Your task to perform on an android device: change the clock display to show seconds Image 0: 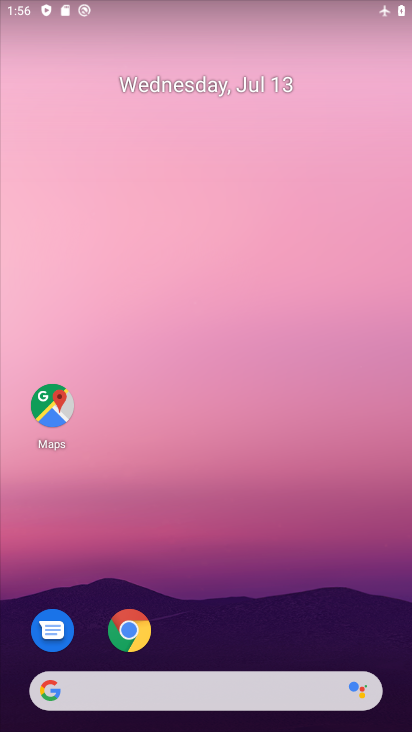
Step 0: drag from (243, 674) to (198, 191)
Your task to perform on an android device: change the clock display to show seconds Image 1: 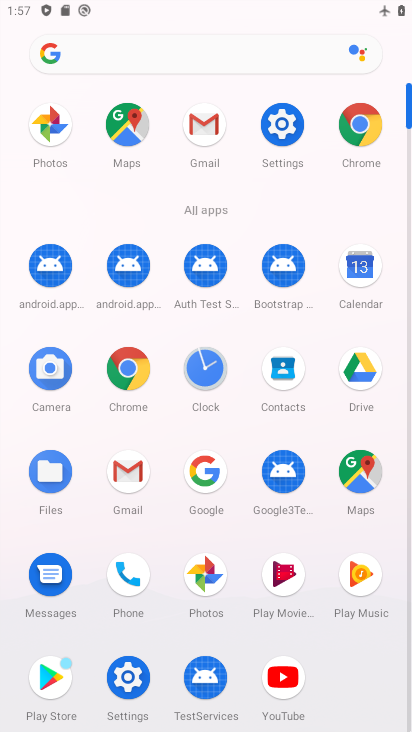
Step 1: click (202, 362)
Your task to perform on an android device: change the clock display to show seconds Image 2: 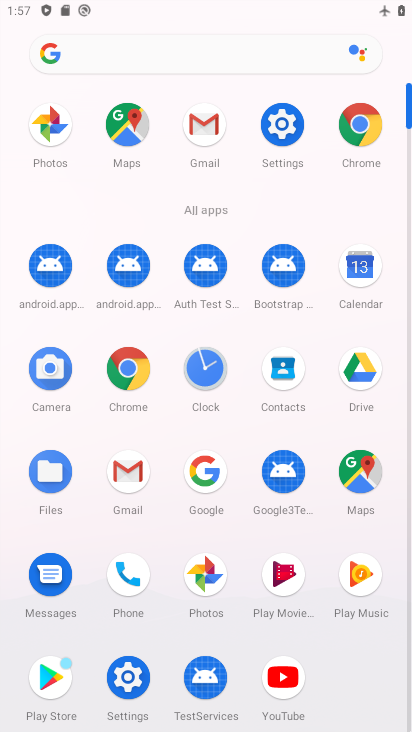
Step 2: click (202, 362)
Your task to perform on an android device: change the clock display to show seconds Image 3: 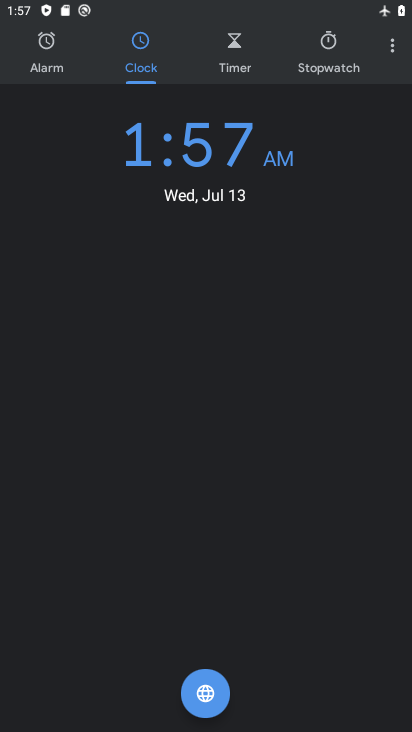
Step 3: click (391, 45)
Your task to perform on an android device: change the clock display to show seconds Image 4: 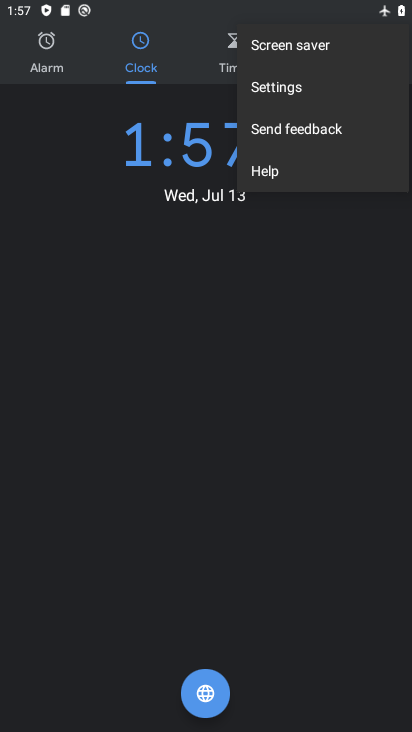
Step 4: click (268, 81)
Your task to perform on an android device: change the clock display to show seconds Image 5: 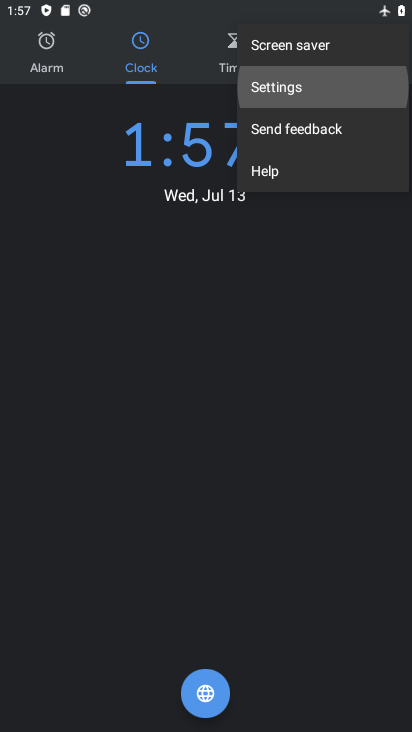
Step 5: click (272, 81)
Your task to perform on an android device: change the clock display to show seconds Image 6: 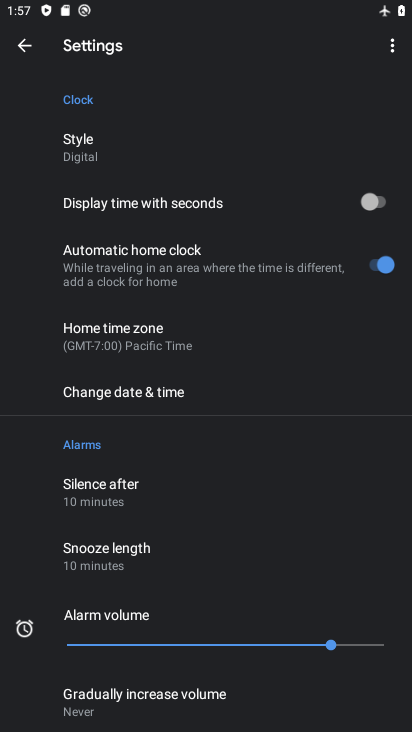
Step 6: click (370, 204)
Your task to perform on an android device: change the clock display to show seconds Image 7: 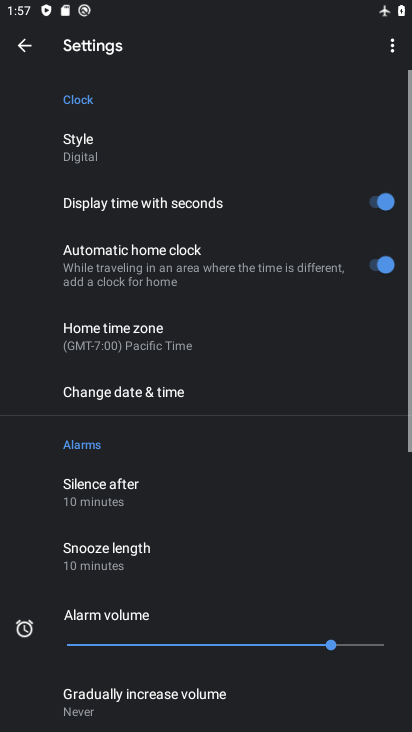
Step 7: task complete